Your task to perform on an android device: toggle notifications settings in the gmail app Image 0: 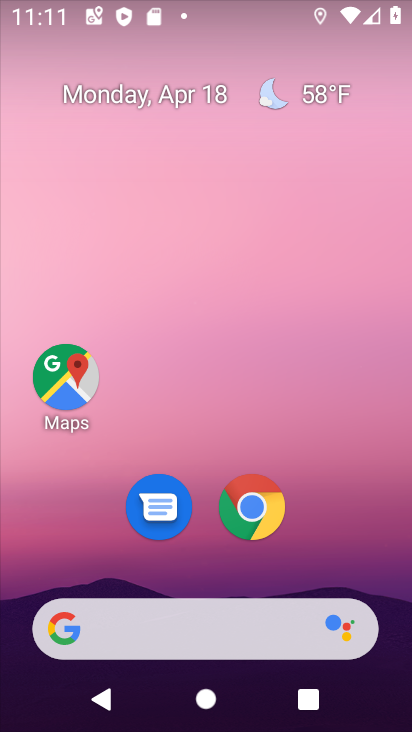
Step 0: drag from (225, 565) to (256, 55)
Your task to perform on an android device: toggle notifications settings in the gmail app Image 1: 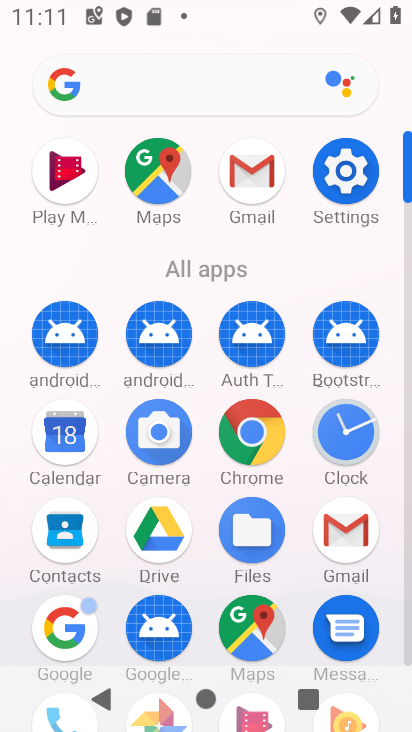
Step 1: drag from (192, 556) to (253, 60)
Your task to perform on an android device: toggle notifications settings in the gmail app Image 2: 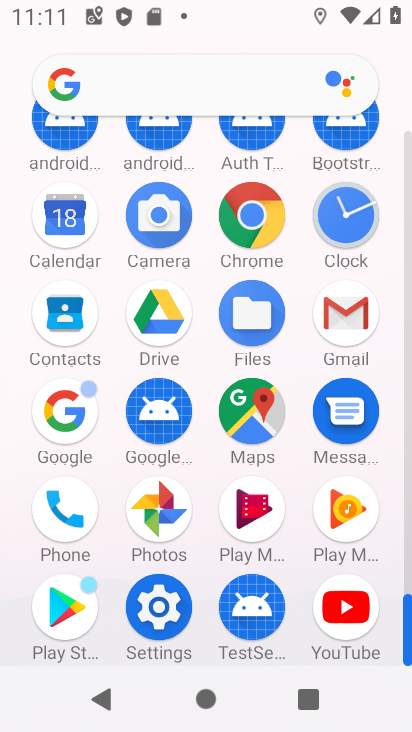
Step 2: click (352, 324)
Your task to perform on an android device: toggle notifications settings in the gmail app Image 3: 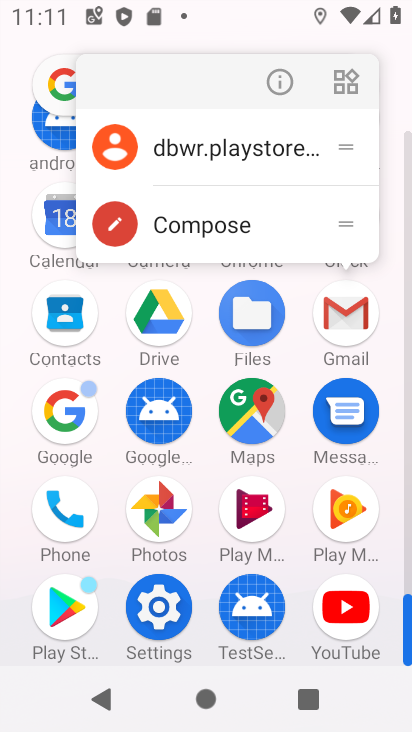
Step 3: click (350, 325)
Your task to perform on an android device: toggle notifications settings in the gmail app Image 4: 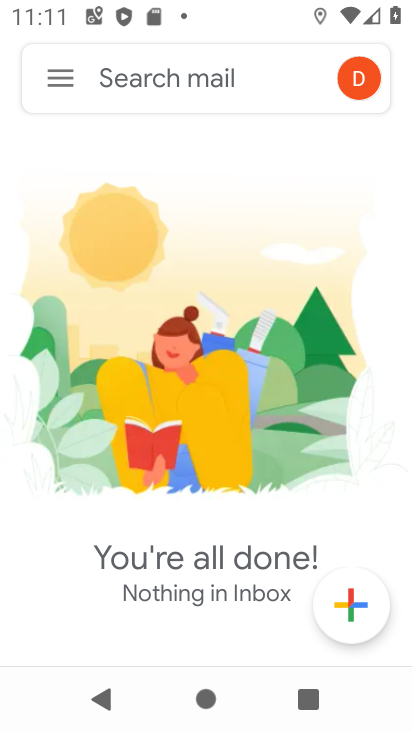
Step 4: click (58, 82)
Your task to perform on an android device: toggle notifications settings in the gmail app Image 5: 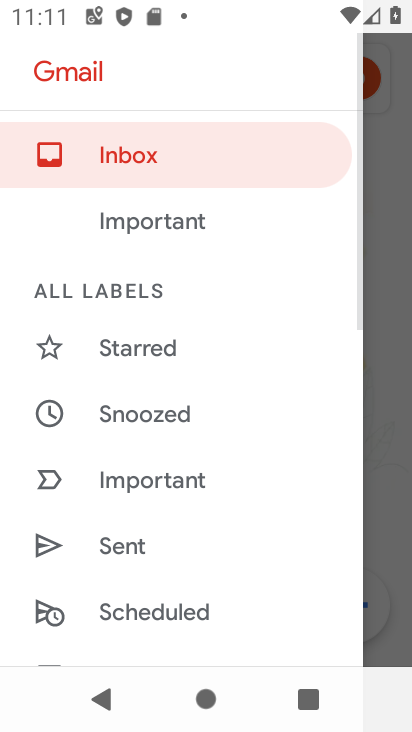
Step 5: drag from (90, 563) to (237, 3)
Your task to perform on an android device: toggle notifications settings in the gmail app Image 6: 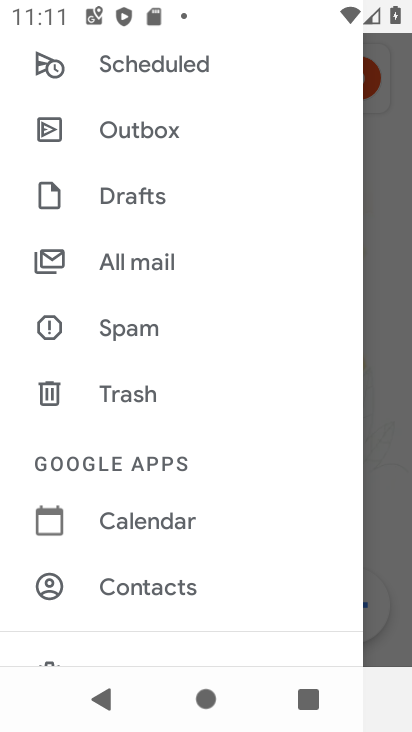
Step 6: drag from (186, 576) to (272, 103)
Your task to perform on an android device: toggle notifications settings in the gmail app Image 7: 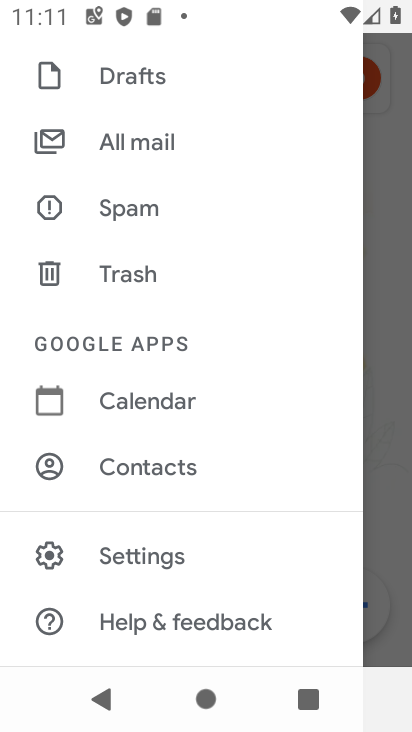
Step 7: click (134, 565)
Your task to perform on an android device: toggle notifications settings in the gmail app Image 8: 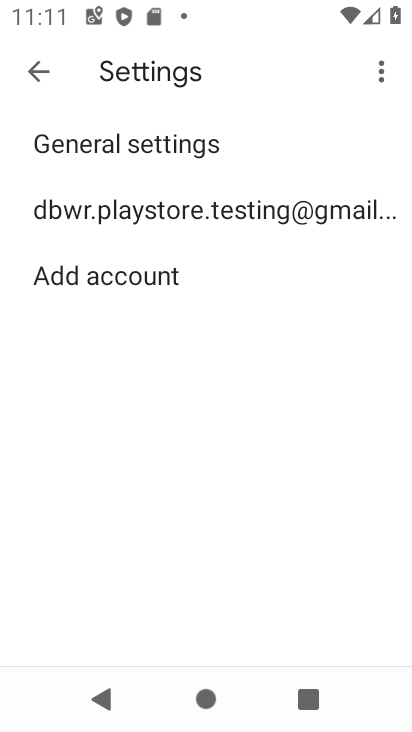
Step 8: click (180, 139)
Your task to perform on an android device: toggle notifications settings in the gmail app Image 9: 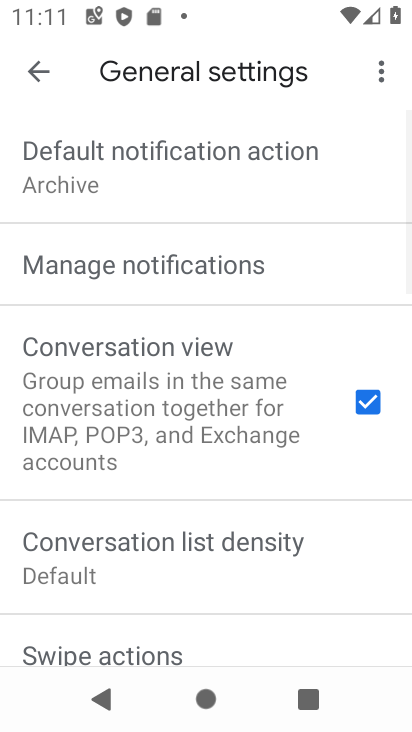
Step 9: click (159, 270)
Your task to perform on an android device: toggle notifications settings in the gmail app Image 10: 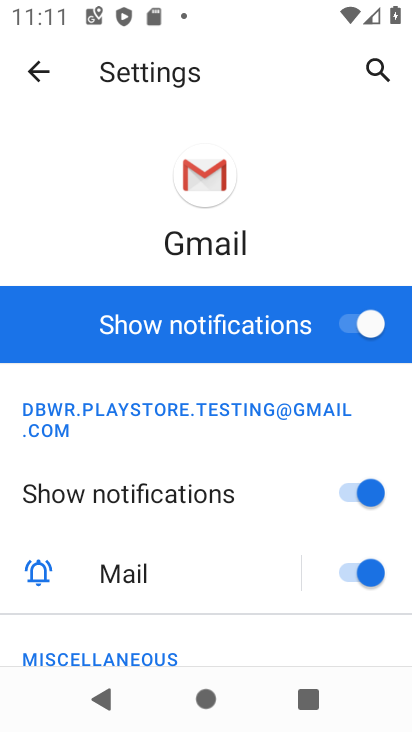
Step 10: click (340, 322)
Your task to perform on an android device: toggle notifications settings in the gmail app Image 11: 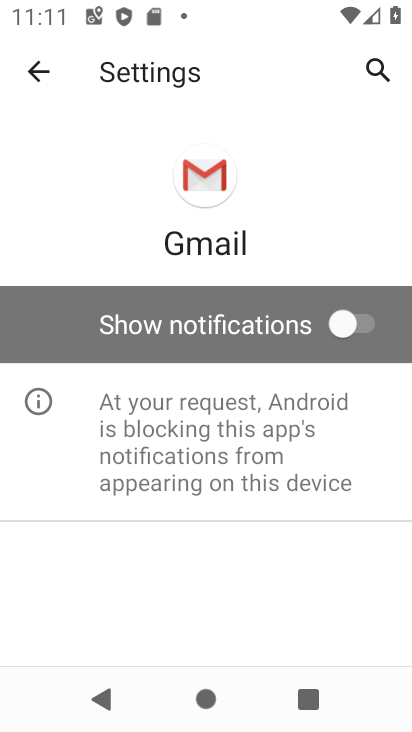
Step 11: task complete